Your task to perform on an android device: turn on translation in the chrome app Image 0: 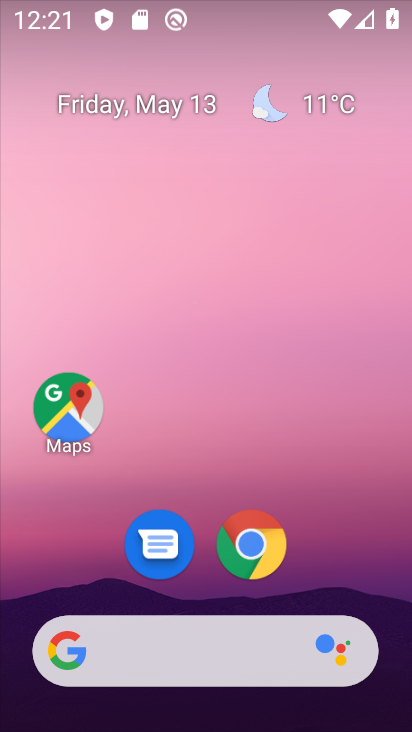
Step 0: click (254, 556)
Your task to perform on an android device: turn on translation in the chrome app Image 1: 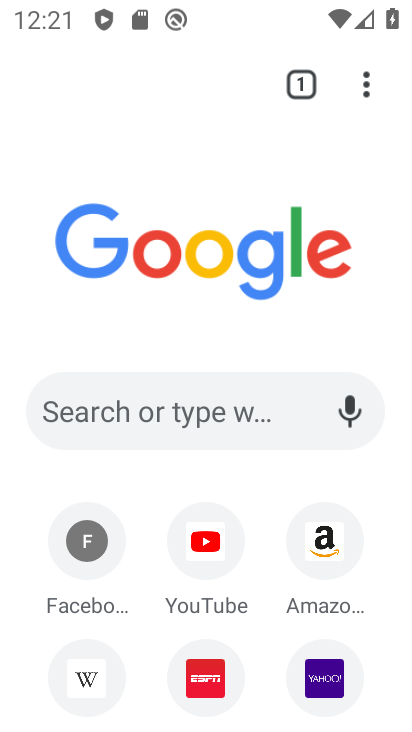
Step 1: drag from (360, 89) to (249, 610)
Your task to perform on an android device: turn on translation in the chrome app Image 2: 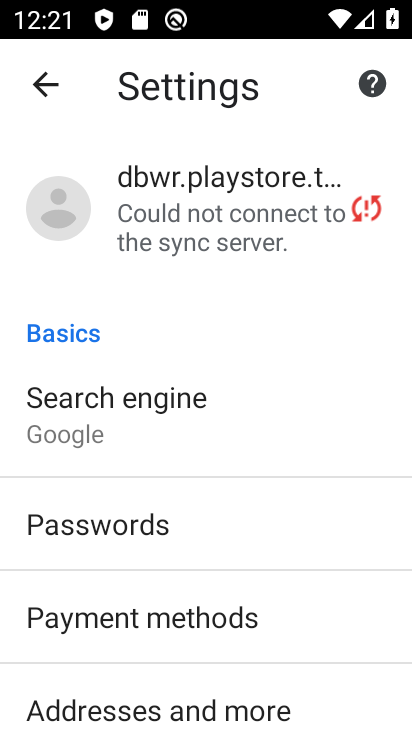
Step 2: drag from (251, 602) to (258, 181)
Your task to perform on an android device: turn on translation in the chrome app Image 3: 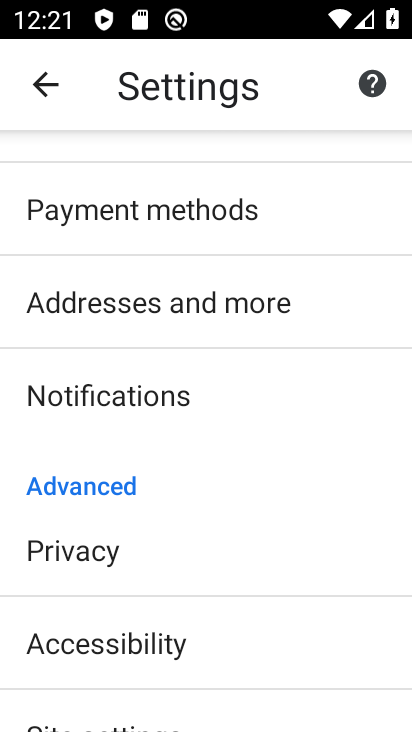
Step 3: drag from (231, 662) to (254, 186)
Your task to perform on an android device: turn on translation in the chrome app Image 4: 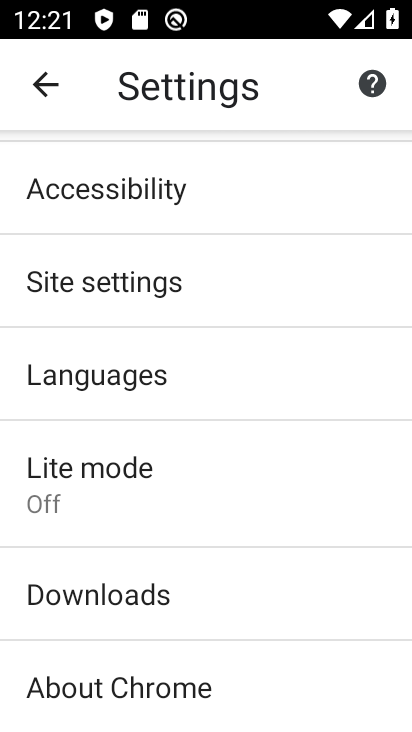
Step 4: click (194, 292)
Your task to perform on an android device: turn on translation in the chrome app Image 5: 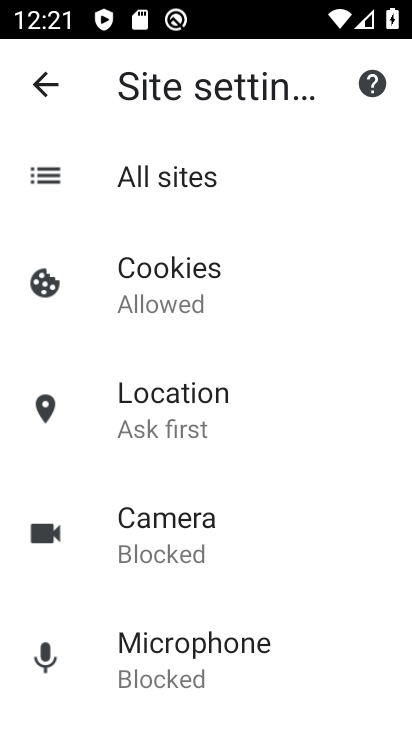
Step 5: press back button
Your task to perform on an android device: turn on translation in the chrome app Image 6: 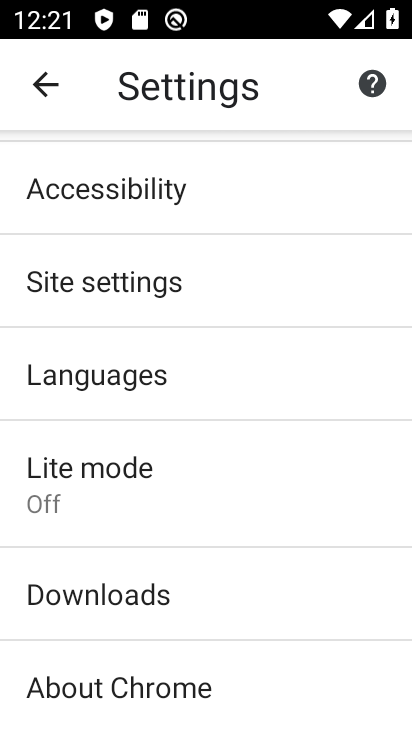
Step 6: click (178, 397)
Your task to perform on an android device: turn on translation in the chrome app Image 7: 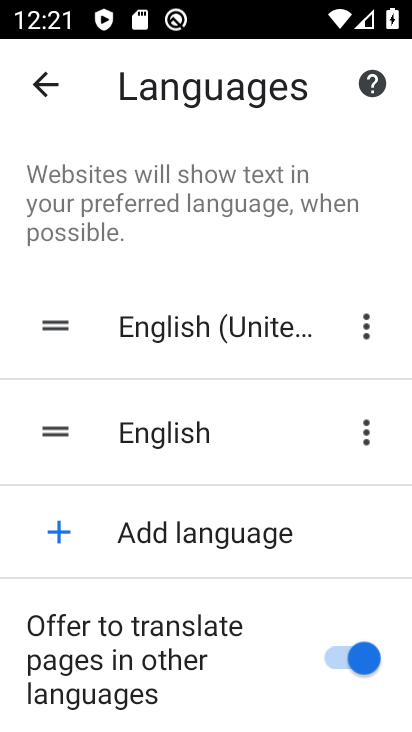
Step 7: task complete